Your task to perform on an android device: Search for vegetarian restaurants on Maps Image 0: 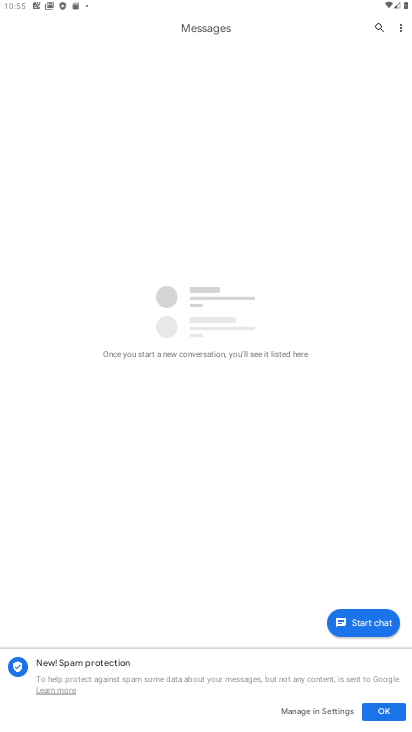
Step 0: press home button
Your task to perform on an android device: Search for vegetarian restaurants on Maps Image 1: 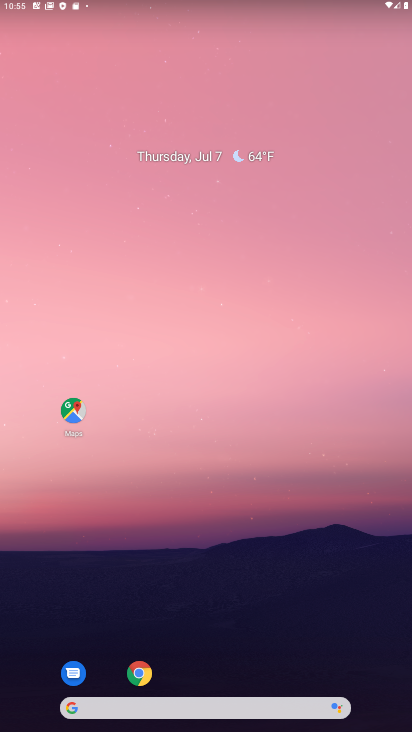
Step 1: drag from (225, 625) to (166, 187)
Your task to perform on an android device: Search for vegetarian restaurants on Maps Image 2: 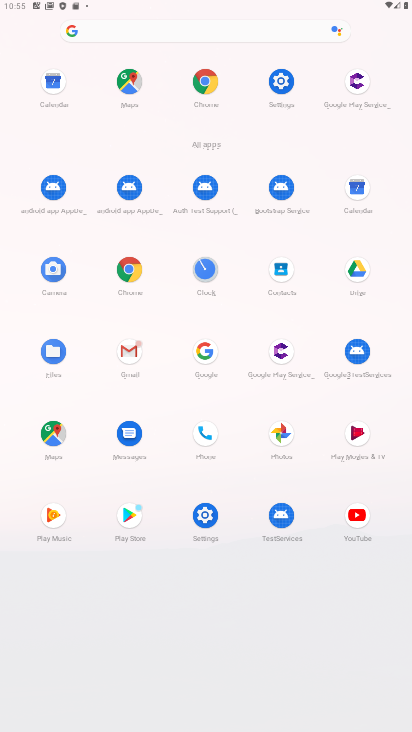
Step 2: click (120, 69)
Your task to perform on an android device: Search for vegetarian restaurants on Maps Image 3: 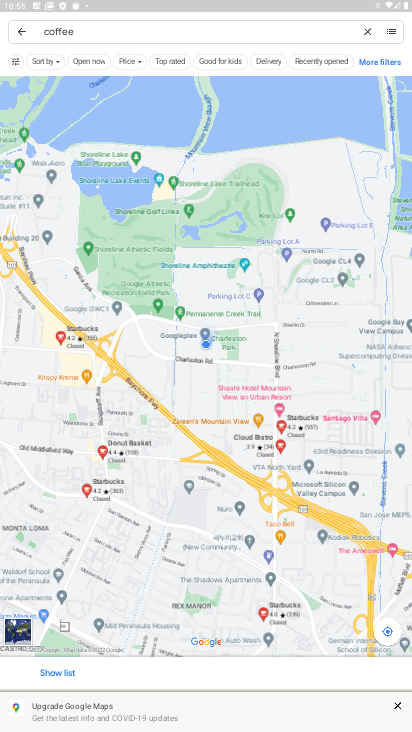
Step 3: click (131, 34)
Your task to perform on an android device: Search for vegetarian restaurants on Maps Image 4: 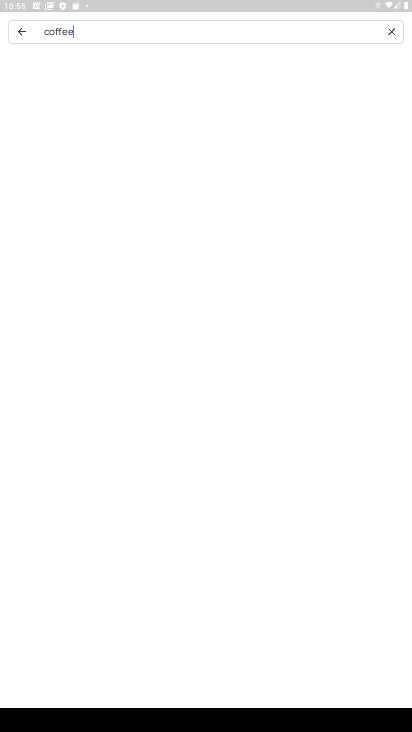
Step 4: click (391, 33)
Your task to perform on an android device: Search for vegetarian restaurants on Maps Image 5: 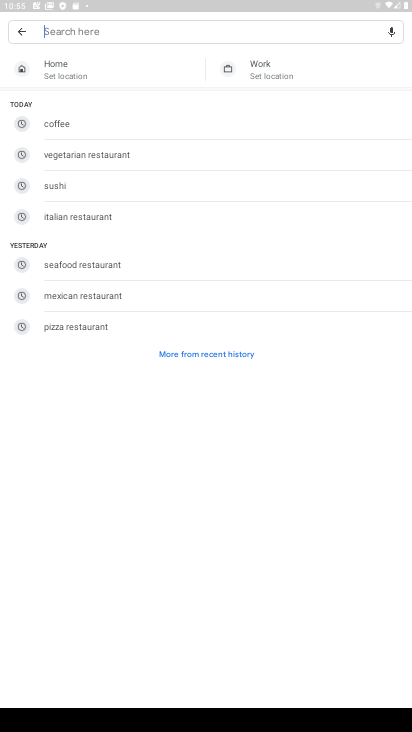
Step 5: type "vegetarian restaurants "
Your task to perform on an android device: Search for vegetarian restaurants on Maps Image 6: 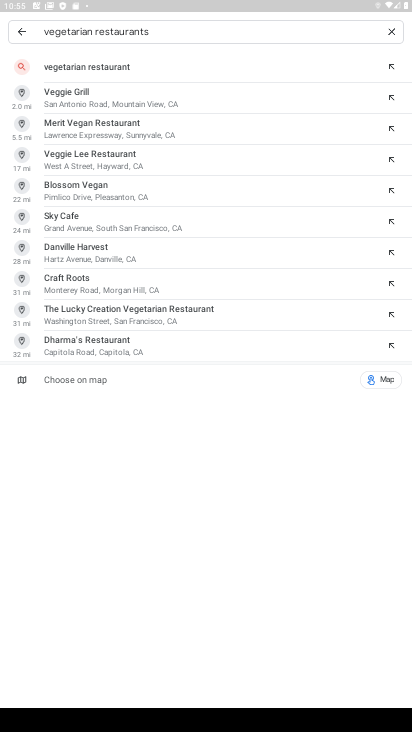
Step 6: click (154, 72)
Your task to perform on an android device: Search for vegetarian restaurants on Maps Image 7: 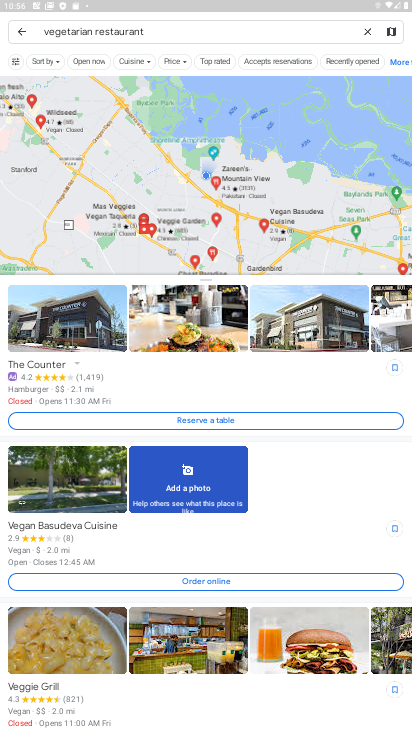
Step 7: task complete